Your task to perform on an android device: all mails in gmail Image 0: 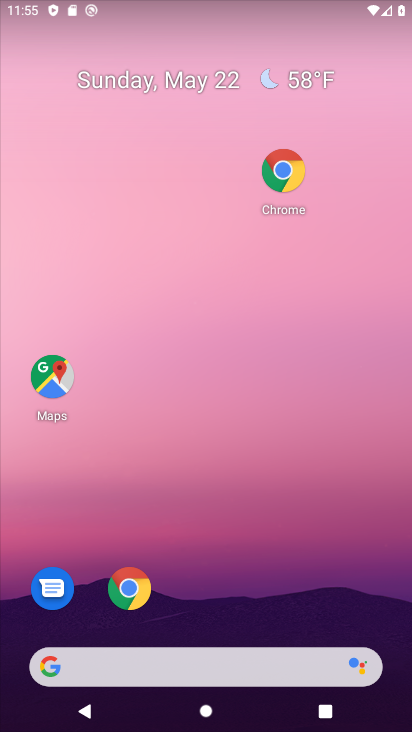
Step 0: drag from (288, 684) to (177, 4)
Your task to perform on an android device: all mails in gmail Image 1: 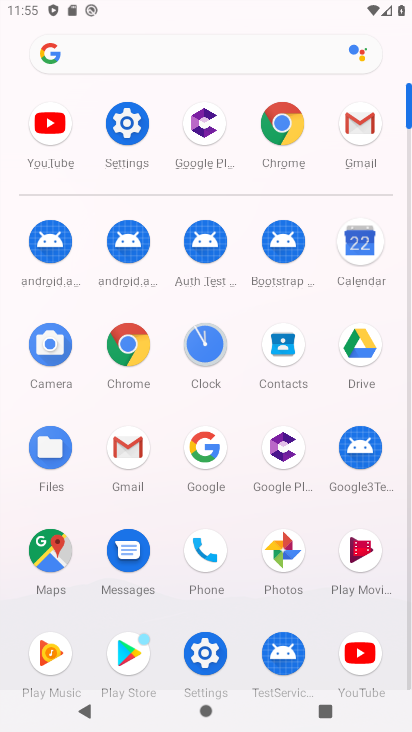
Step 1: click (353, 125)
Your task to perform on an android device: all mails in gmail Image 2: 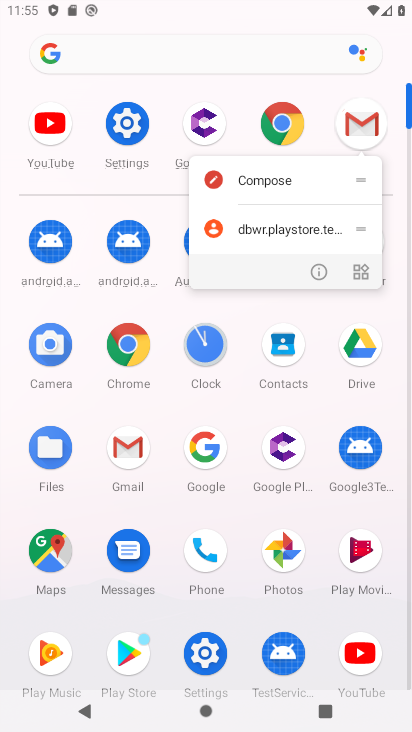
Step 2: click (353, 125)
Your task to perform on an android device: all mails in gmail Image 3: 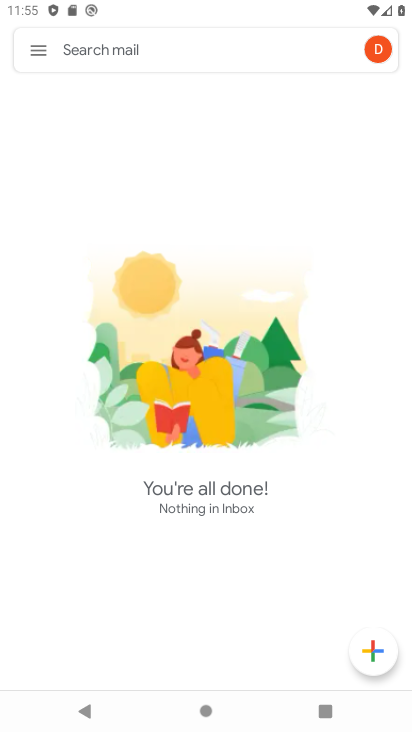
Step 3: task complete